Your task to perform on an android device: Turn on the flashlight Image 0: 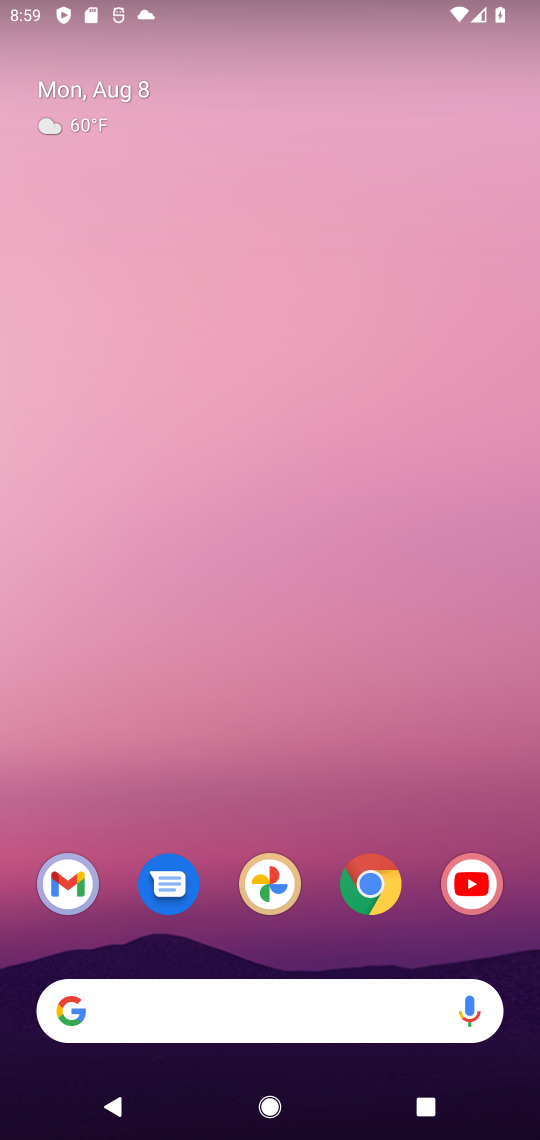
Step 0: drag from (302, 14) to (350, 639)
Your task to perform on an android device: Turn on the flashlight Image 1: 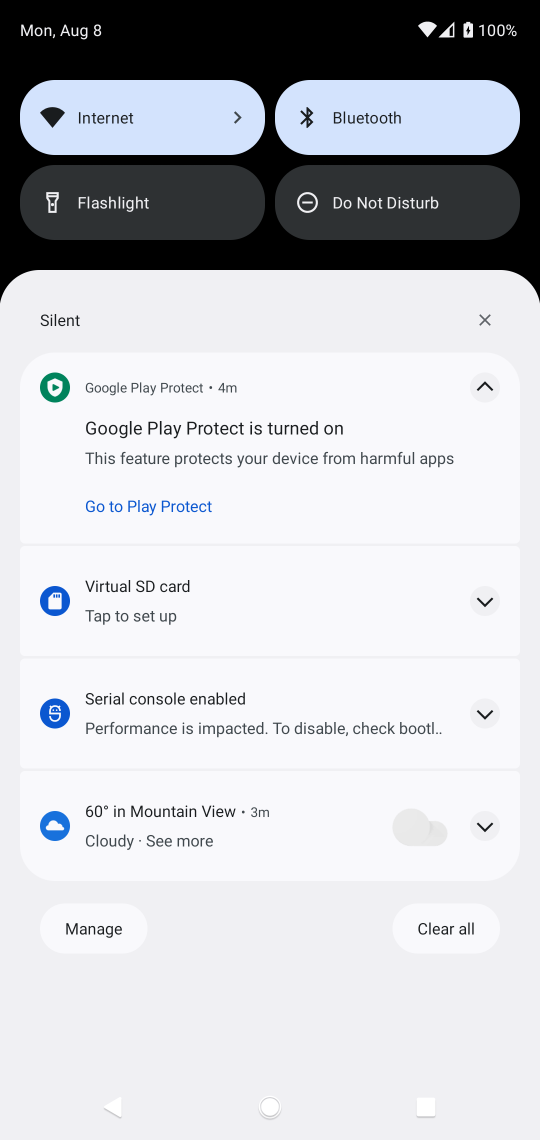
Step 1: drag from (269, 245) to (331, 1095)
Your task to perform on an android device: Turn on the flashlight Image 2: 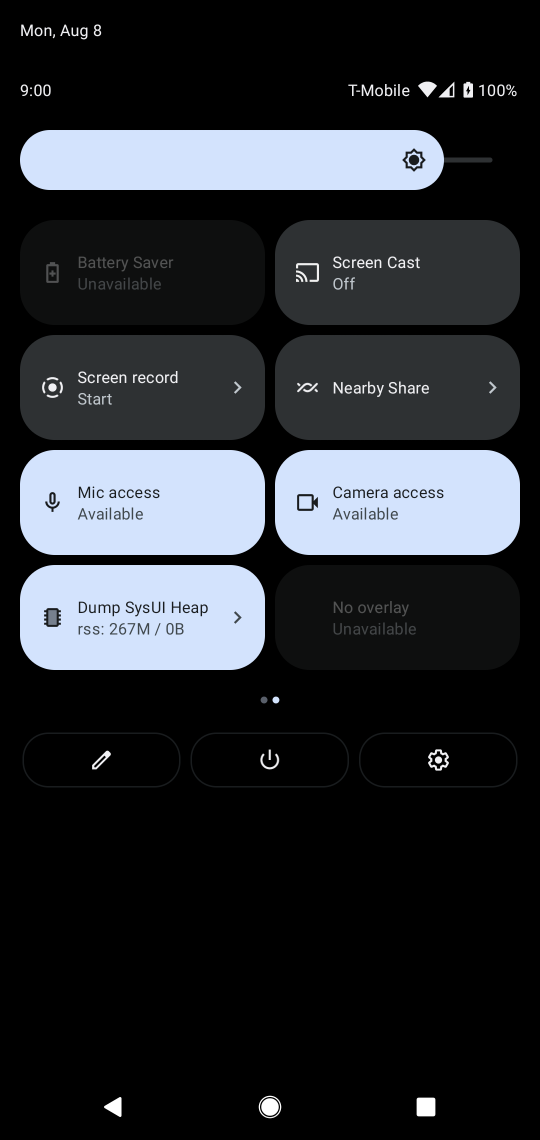
Step 2: click (108, 762)
Your task to perform on an android device: Turn on the flashlight Image 3: 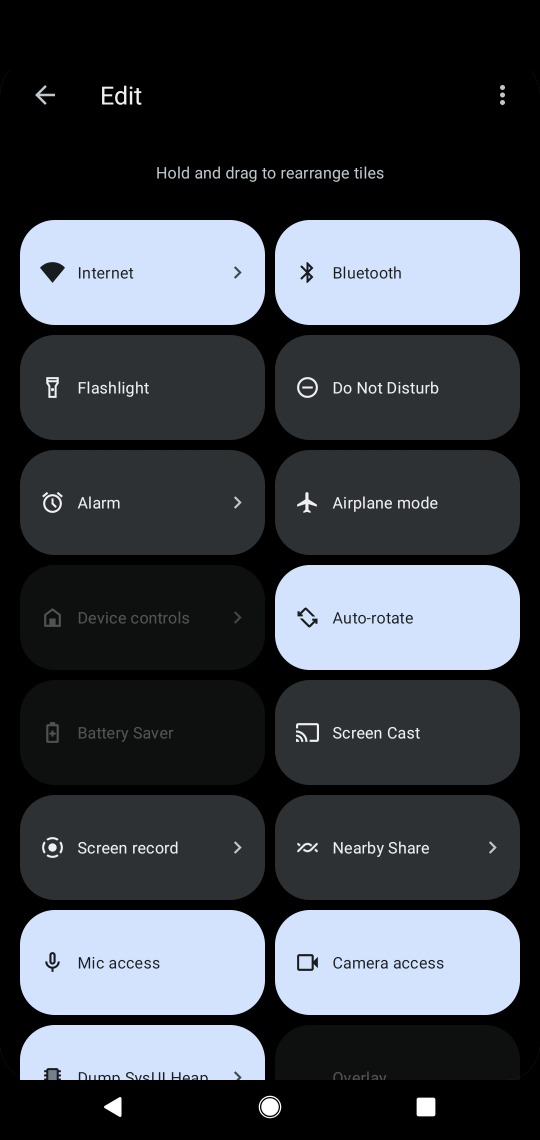
Step 3: click (136, 396)
Your task to perform on an android device: Turn on the flashlight Image 4: 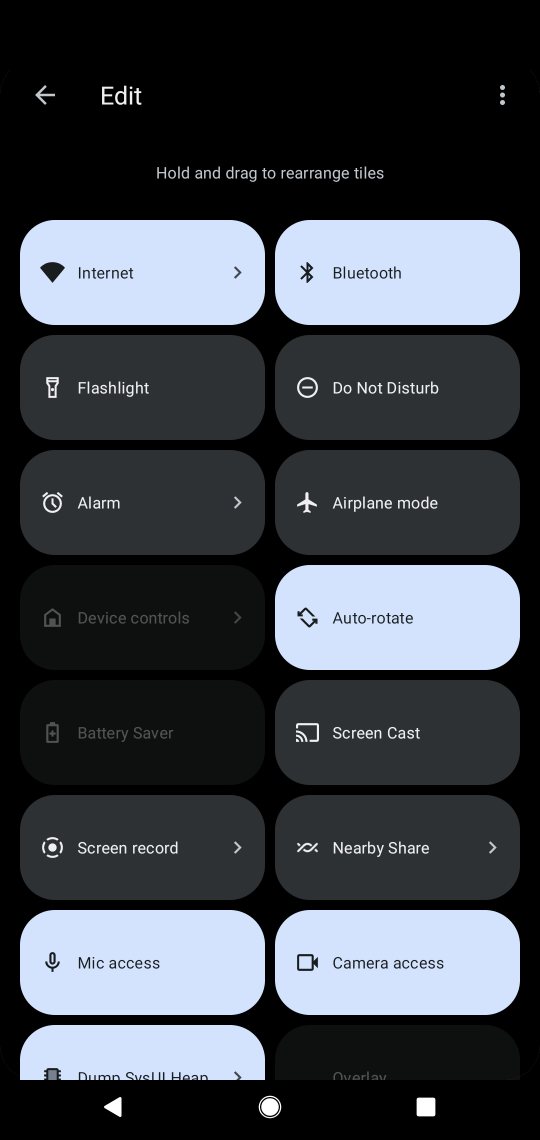
Step 4: click (135, 396)
Your task to perform on an android device: Turn on the flashlight Image 5: 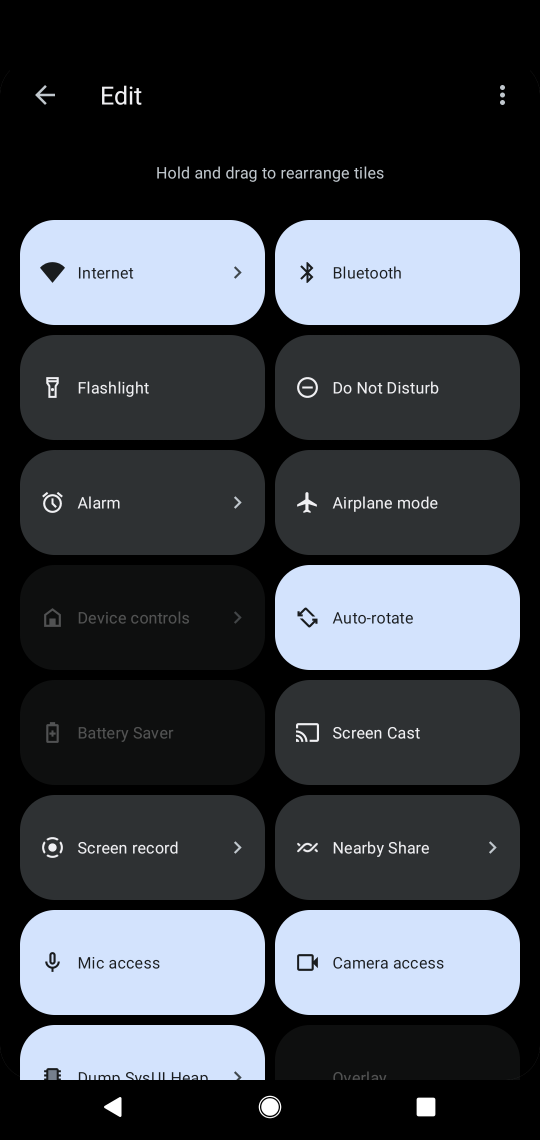
Step 5: click (135, 396)
Your task to perform on an android device: Turn on the flashlight Image 6: 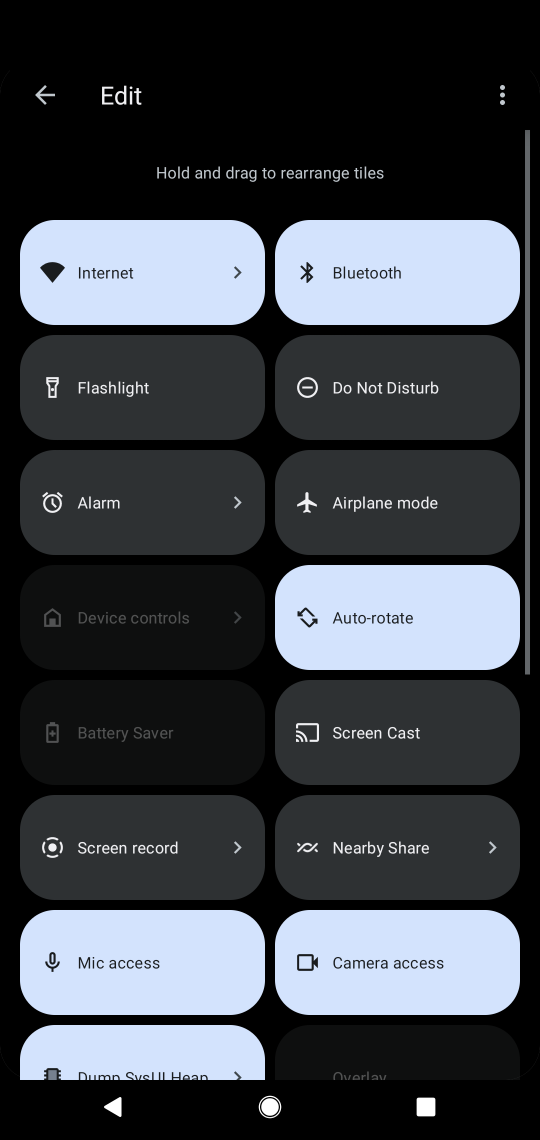
Step 6: task complete